Your task to perform on an android device: turn off translation in the chrome app Image 0: 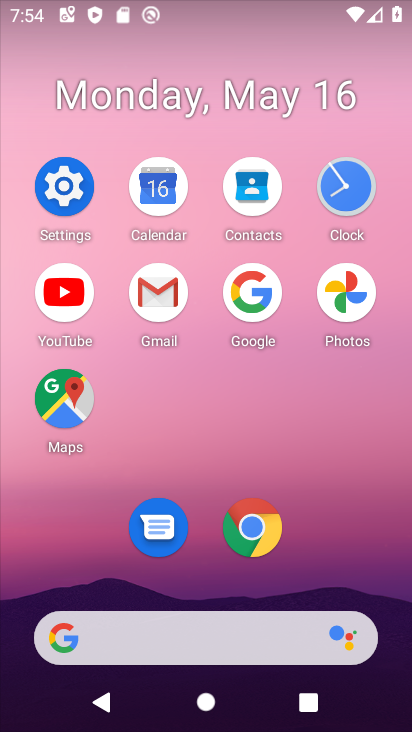
Step 0: click (266, 527)
Your task to perform on an android device: turn off translation in the chrome app Image 1: 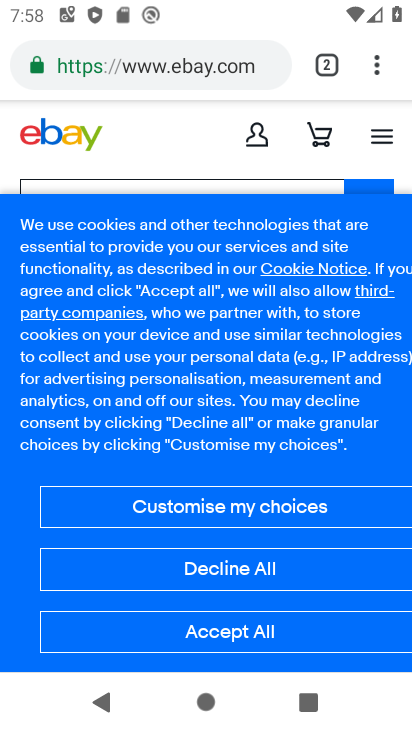
Step 1: click (380, 65)
Your task to perform on an android device: turn off translation in the chrome app Image 2: 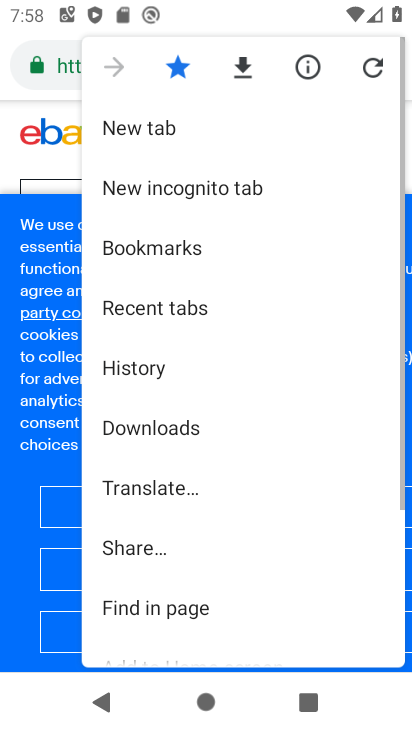
Step 2: drag from (233, 556) to (281, 170)
Your task to perform on an android device: turn off translation in the chrome app Image 3: 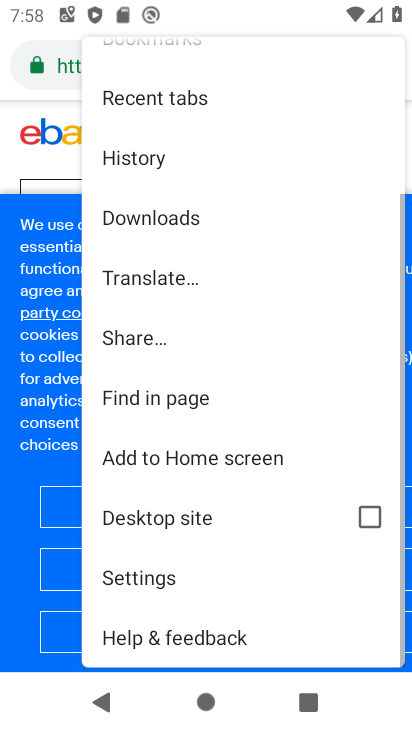
Step 3: click (200, 576)
Your task to perform on an android device: turn off translation in the chrome app Image 4: 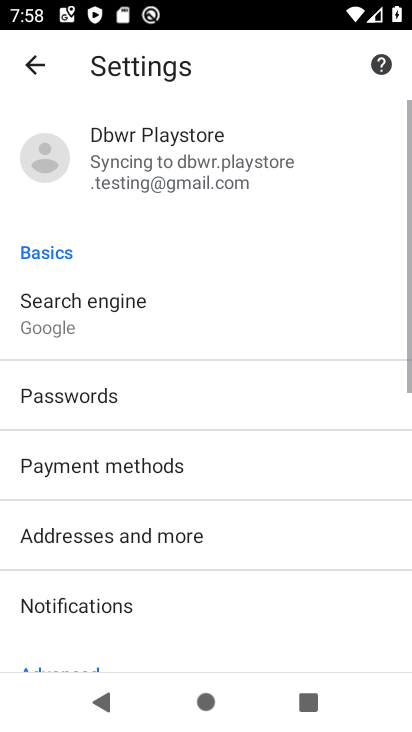
Step 4: drag from (200, 576) to (221, 188)
Your task to perform on an android device: turn off translation in the chrome app Image 5: 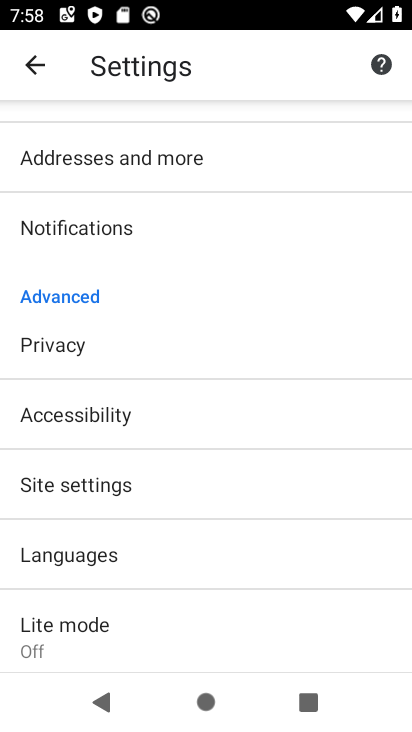
Step 5: drag from (214, 500) to (190, 175)
Your task to perform on an android device: turn off translation in the chrome app Image 6: 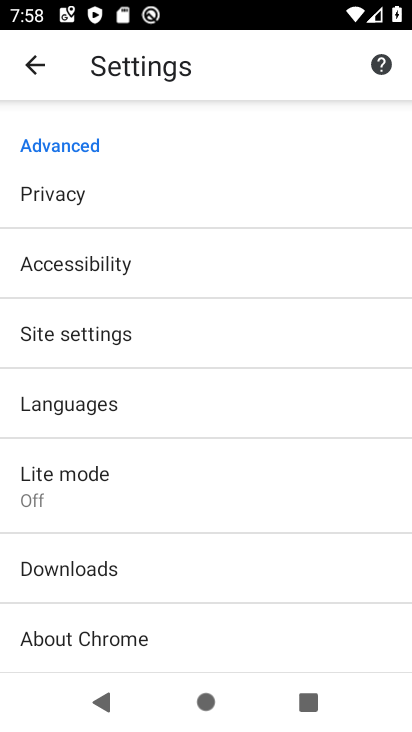
Step 6: click (209, 420)
Your task to perform on an android device: turn off translation in the chrome app Image 7: 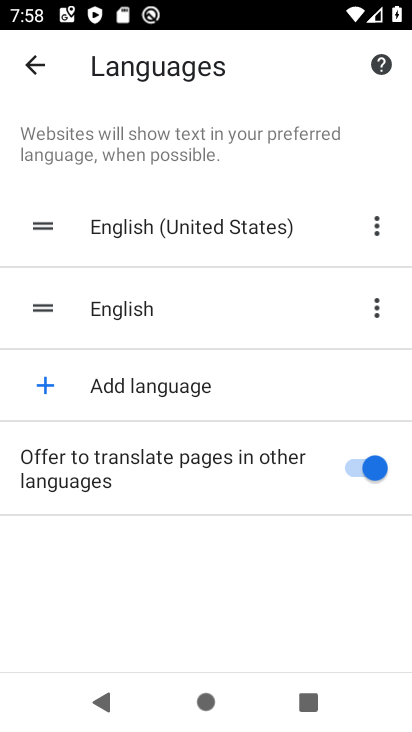
Step 7: click (362, 461)
Your task to perform on an android device: turn off translation in the chrome app Image 8: 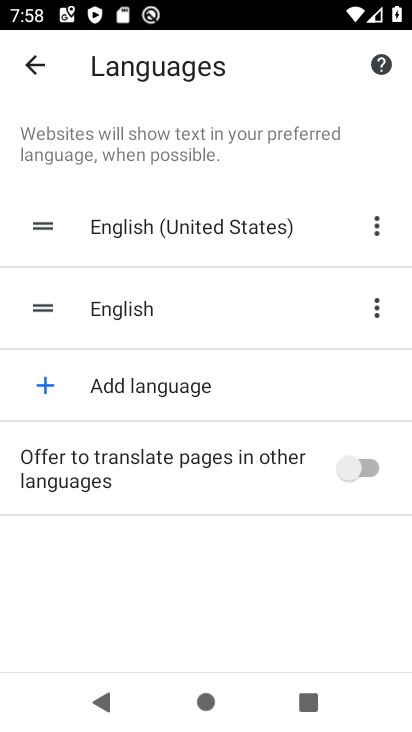
Step 8: task complete